Your task to perform on an android device: Search for Mexican restaurants on Maps Image 0: 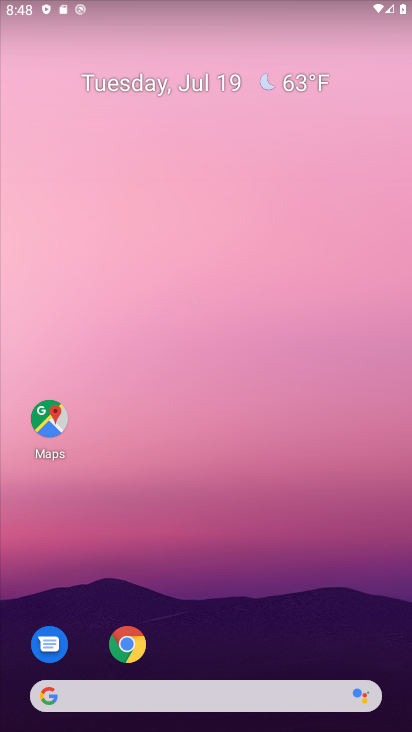
Step 0: click (233, 107)
Your task to perform on an android device: Search for Mexican restaurants on Maps Image 1: 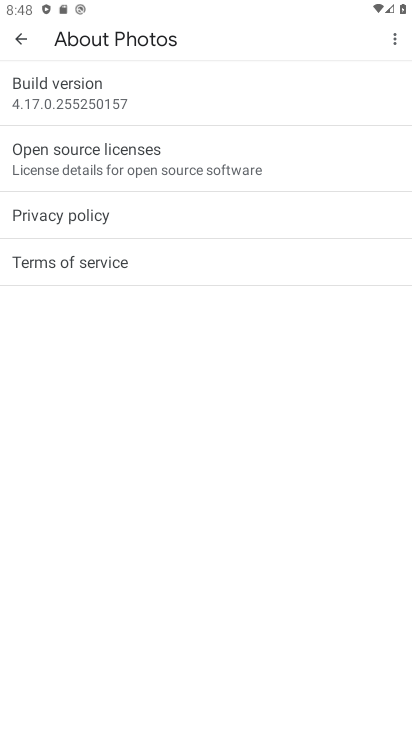
Step 1: press back button
Your task to perform on an android device: Search for Mexican restaurants on Maps Image 2: 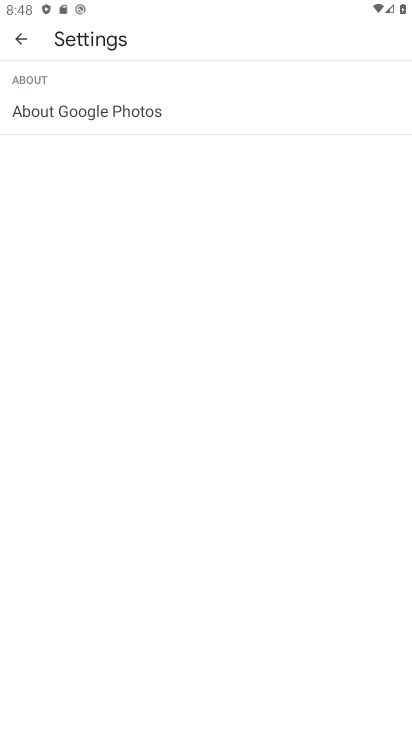
Step 2: click (20, 37)
Your task to perform on an android device: Search for Mexican restaurants on Maps Image 3: 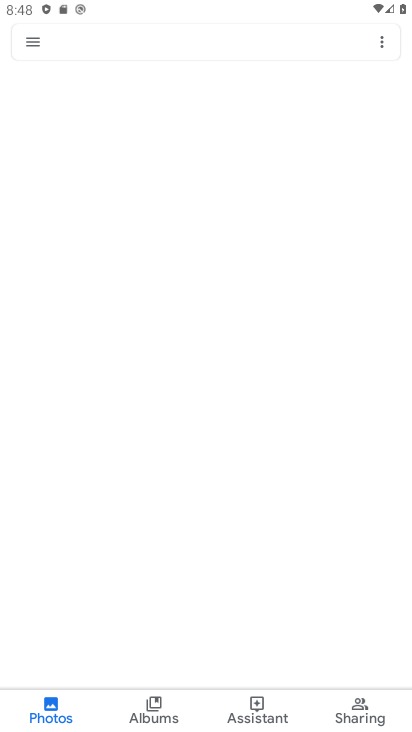
Step 3: press home button
Your task to perform on an android device: Search for Mexican restaurants on Maps Image 4: 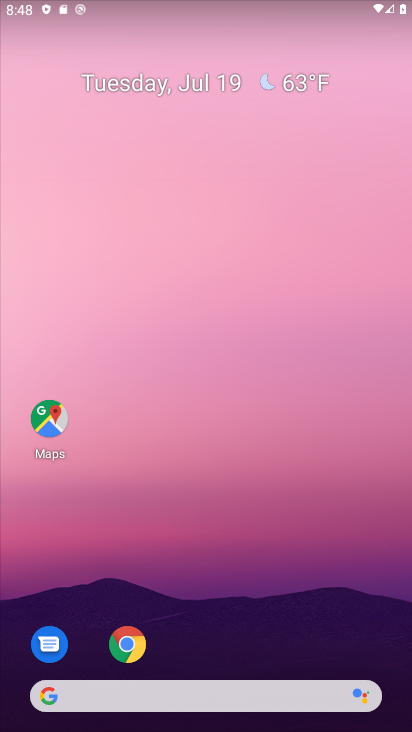
Step 4: click (38, 424)
Your task to perform on an android device: Search for Mexican restaurants on Maps Image 5: 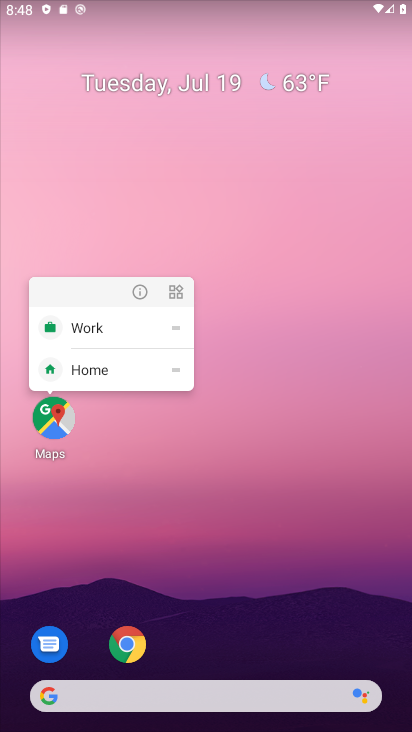
Step 5: click (44, 421)
Your task to perform on an android device: Search for Mexican restaurants on Maps Image 6: 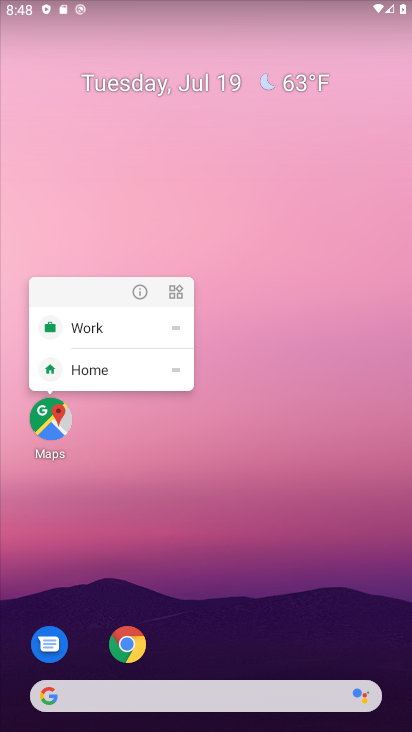
Step 6: click (46, 418)
Your task to perform on an android device: Search for Mexican restaurants on Maps Image 7: 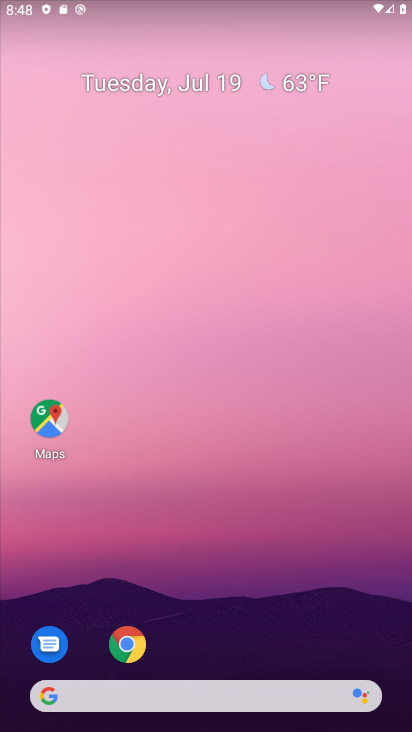
Step 7: click (54, 413)
Your task to perform on an android device: Search for Mexican restaurants on Maps Image 8: 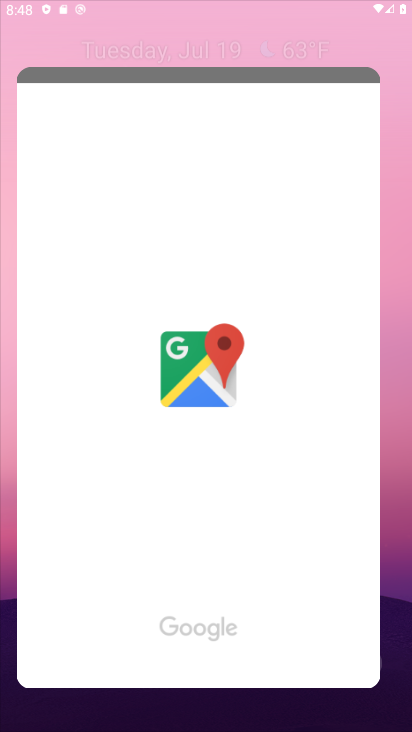
Step 8: click (54, 427)
Your task to perform on an android device: Search for Mexican restaurants on Maps Image 9: 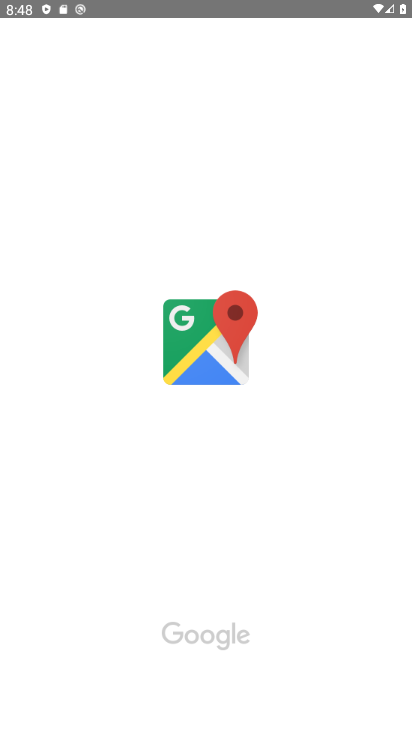
Step 9: click (55, 426)
Your task to perform on an android device: Search for Mexican restaurants on Maps Image 10: 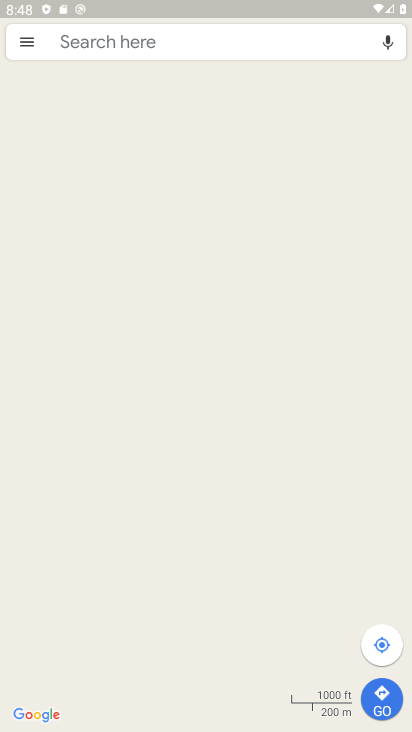
Step 10: click (90, 47)
Your task to perform on an android device: Search for Mexican restaurants on Maps Image 11: 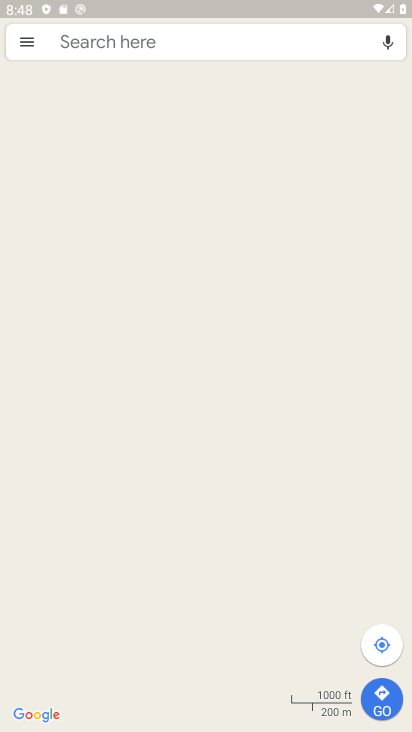
Step 11: click (86, 48)
Your task to perform on an android device: Search for Mexican restaurants on Maps Image 12: 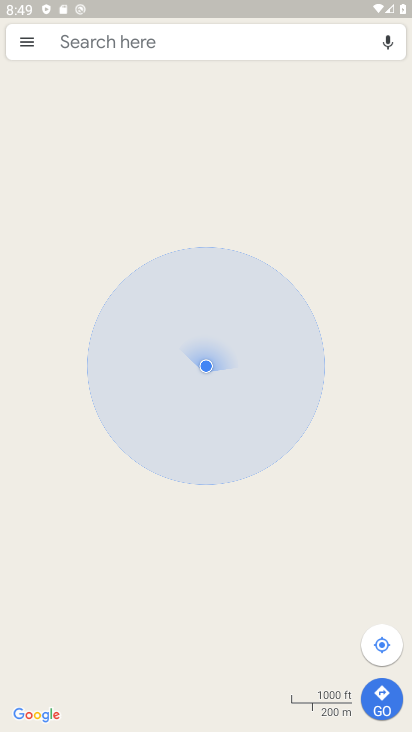
Step 12: click (96, 23)
Your task to perform on an android device: Search for Mexican restaurants on Maps Image 13: 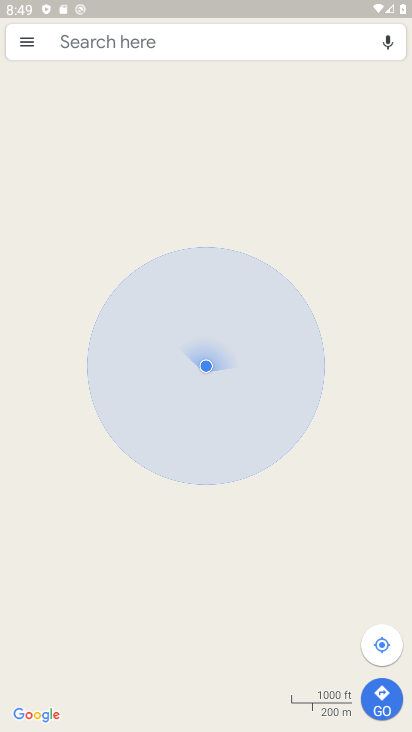
Step 13: click (105, 44)
Your task to perform on an android device: Search for Mexican restaurants on Maps Image 14: 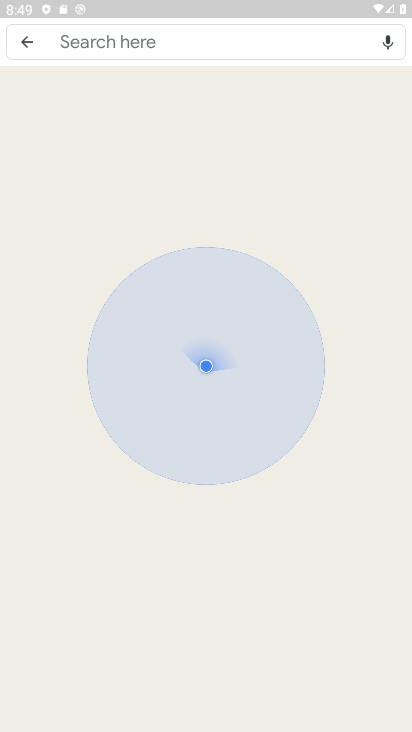
Step 14: click (68, 48)
Your task to perform on an android device: Search for Mexican restaurants on Maps Image 15: 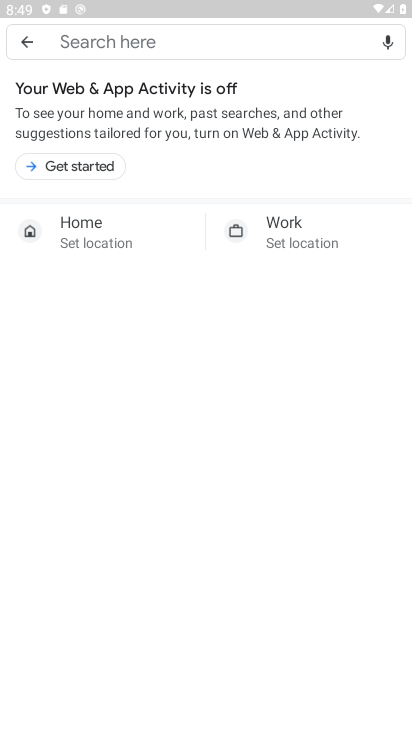
Step 15: click (90, 39)
Your task to perform on an android device: Search for Mexican restaurants on Maps Image 16: 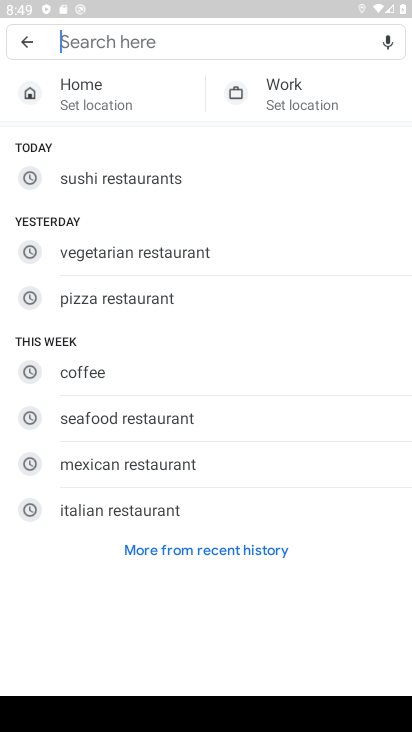
Step 16: type "mex"
Your task to perform on an android device: Search for Mexican restaurants on Maps Image 17: 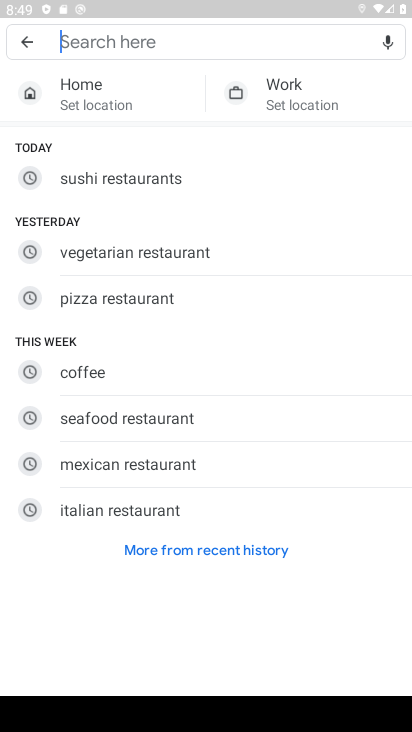
Step 17: click (138, 463)
Your task to perform on an android device: Search for Mexican restaurants on Maps Image 18: 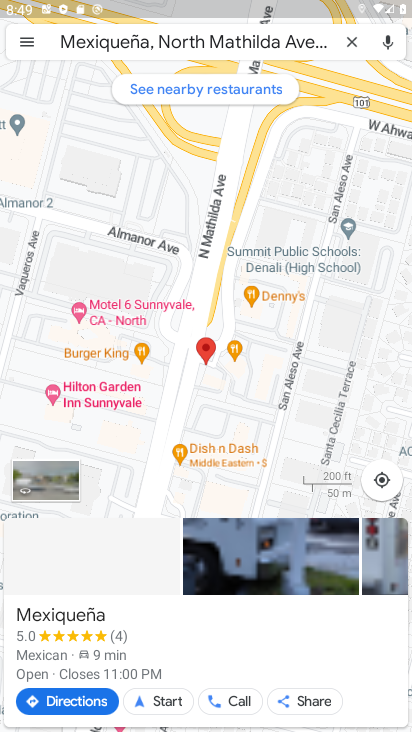
Step 18: task complete